Your task to perform on an android device: toggle show notifications on the lock screen Image 0: 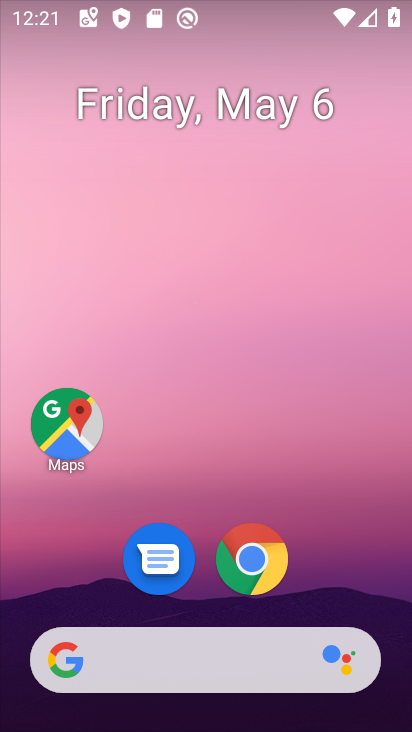
Step 0: drag from (324, 596) to (305, 129)
Your task to perform on an android device: toggle show notifications on the lock screen Image 1: 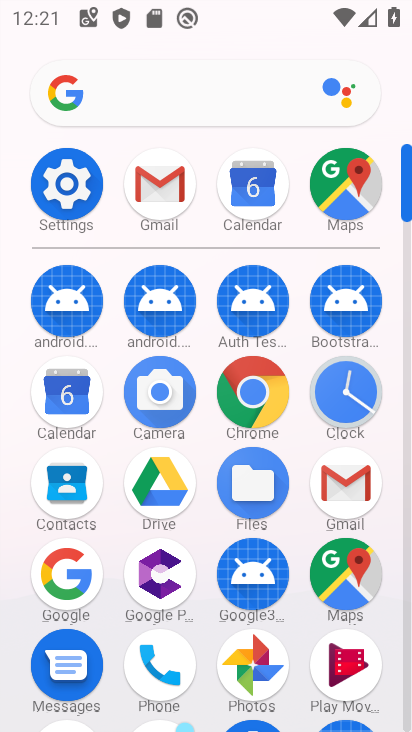
Step 1: click (63, 185)
Your task to perform on an android device: toggle show notifications on the lock screen Image 2: 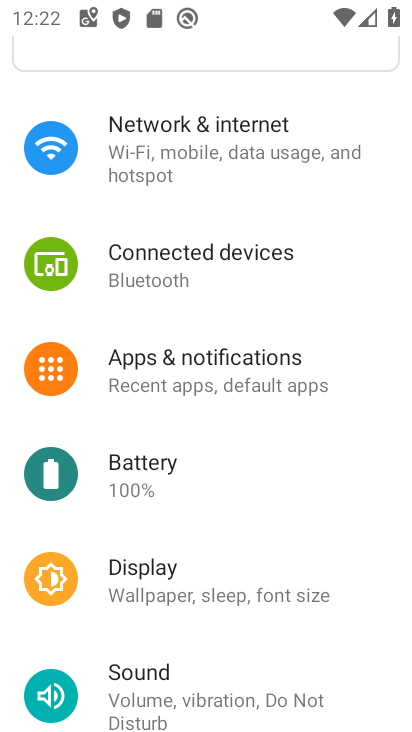
Step 2: click (240, 370)
Your task to perform on an android device: toggle show notifications on the lock screen Image 3: 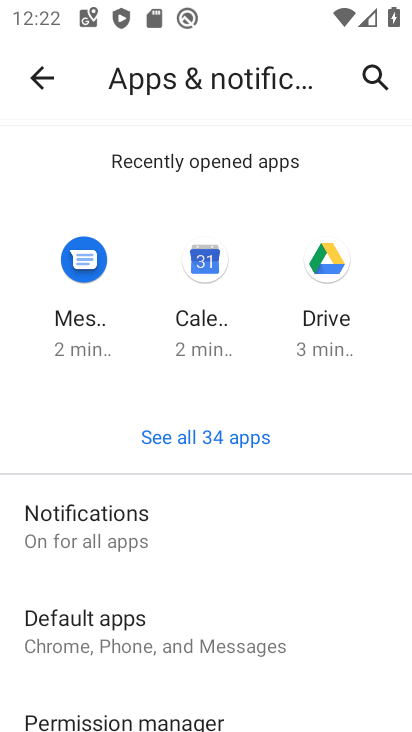
Step 3: click (125, 532)
Your task to perform on an android device: toggle show notifications on the lock screen Image 4: 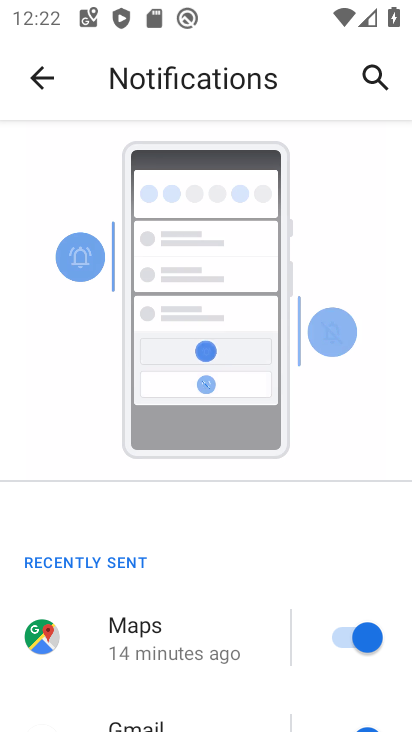
Step 4: drag from (141, 601) to (251, 100)
Your task to perform on an android device: toggle show notifications on the lock screen Image 5: 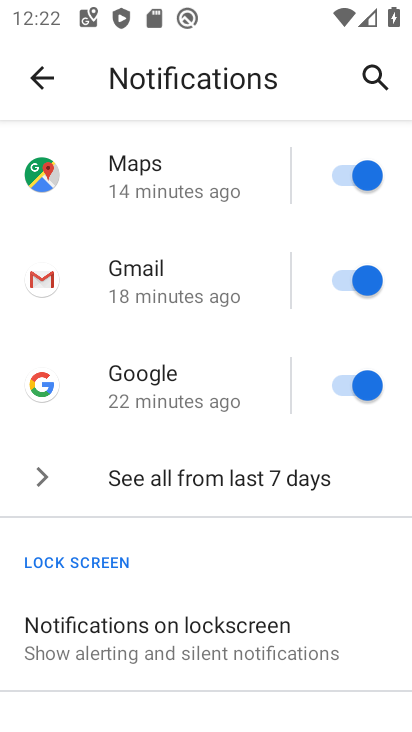
Step 5: click (135, 654)
Your task to perform on an android device: toggle show notifications on the lock screen Image 6: 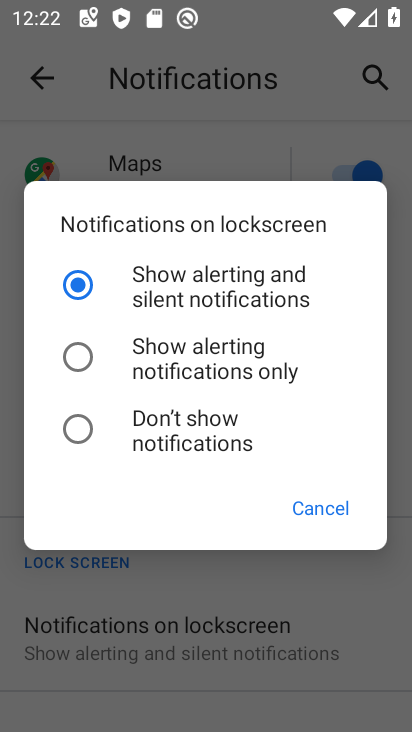
Step 6: click (121, 355)
Your task to perform on an android device: toggle show notifications on the lock screen Image 7: 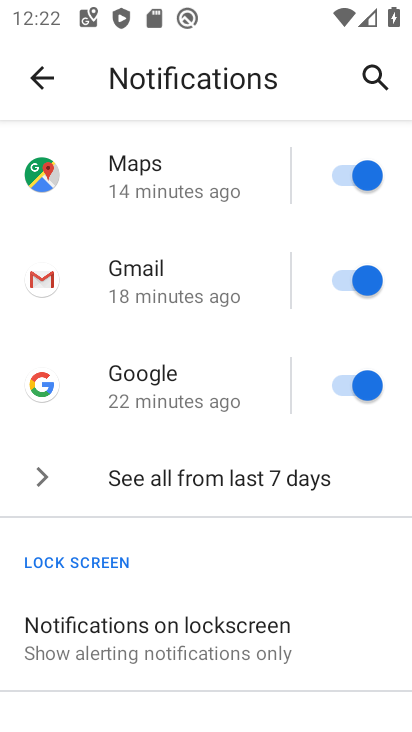
Step 7: task complete